Your task to perform on an android device: allow notifications from all sites in the chrome app Image 0: 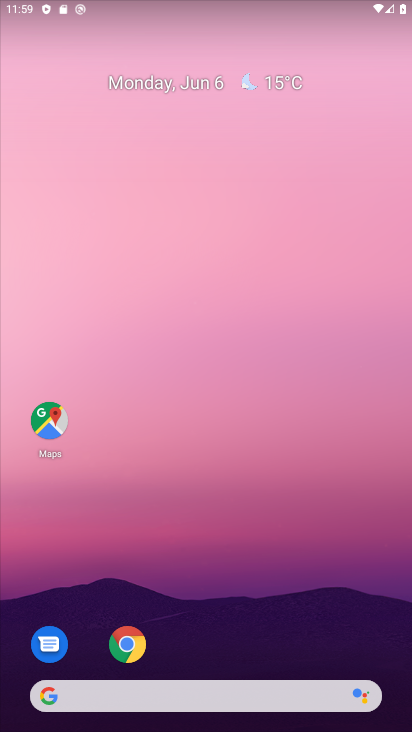
Step 0: click (129, 642)
Your task to perform on an android device: allow notifications from all sites in the chrome app Image 1: 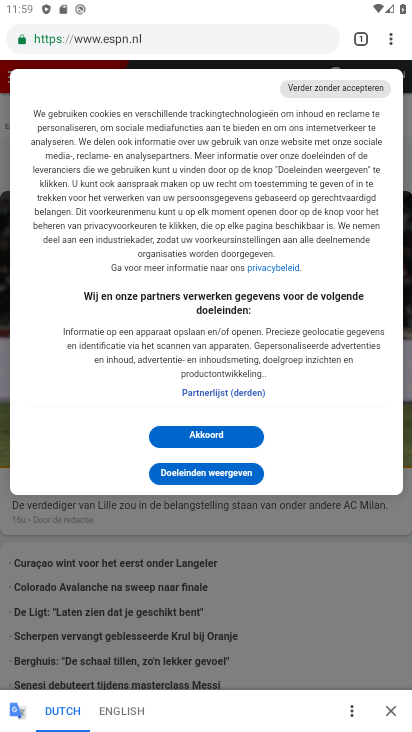
Step 1: drag from (398, 35) to (273, 463)
Your task to perform on an android device: allow notifications from all sites in the chrome app Image 2: 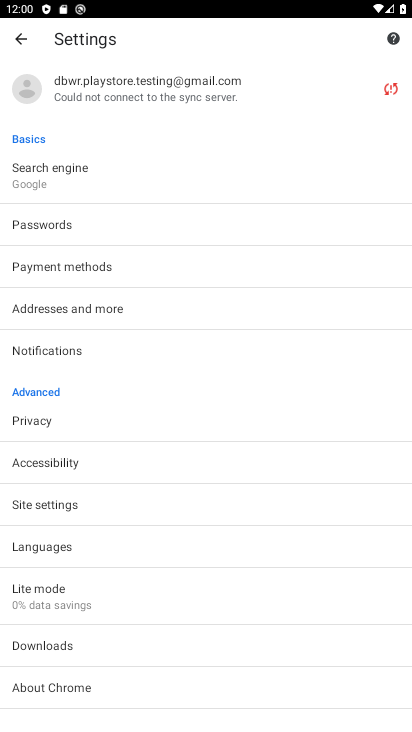
Step 2: click (77, 353)
Your task to perform on an android device: allow notifications from all sites in the chrome app Image 3: 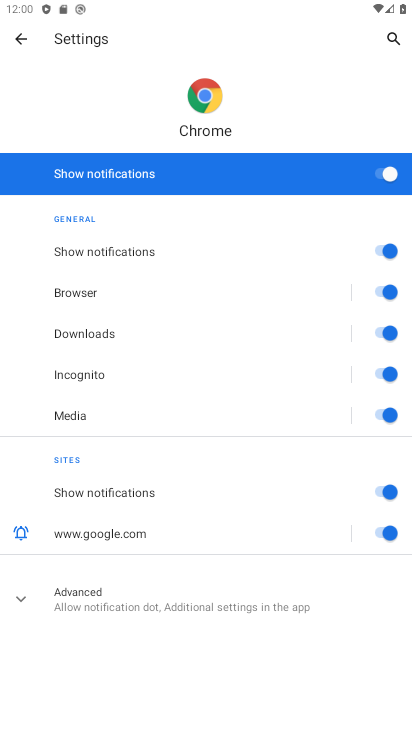
Step 3: task complete